Your task to perform on an android device: Open Google Chrome Image 0: 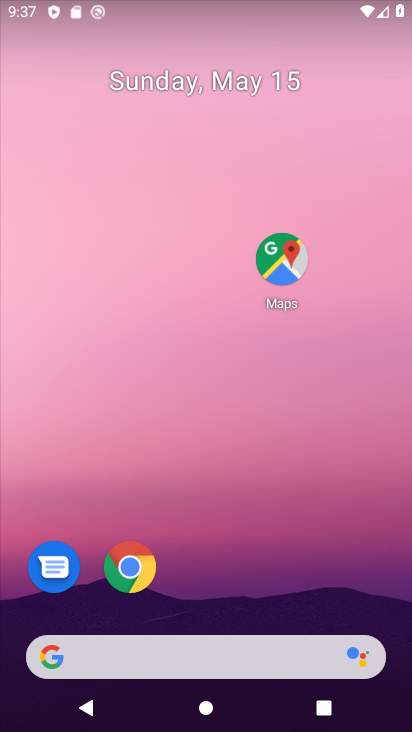
Step 0: click (144, 567)
Your task to perform on an android device: Open Google Chrome Image 1: 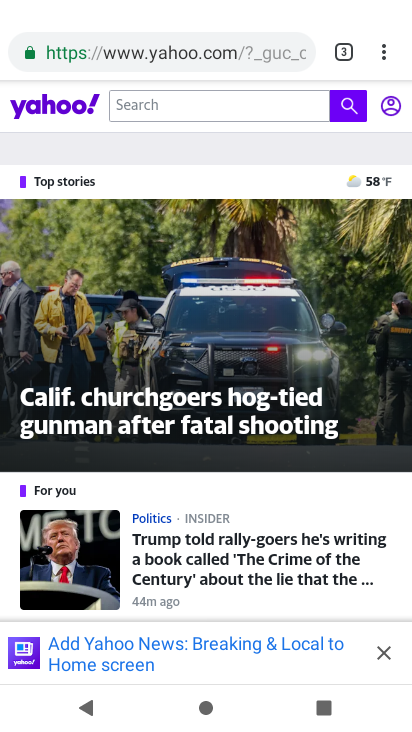
Step 1: task complete